Your task to perform on an android device: Open Google Chrome Image 0: 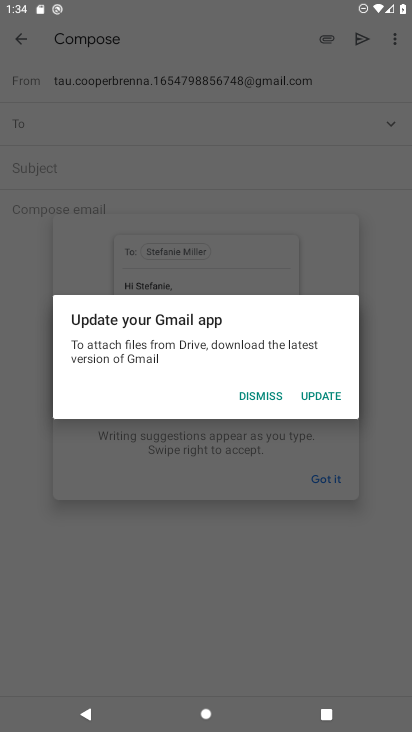
Step 0: press home button
Your task to perform on an android device: Open Google Chrome Image 1: 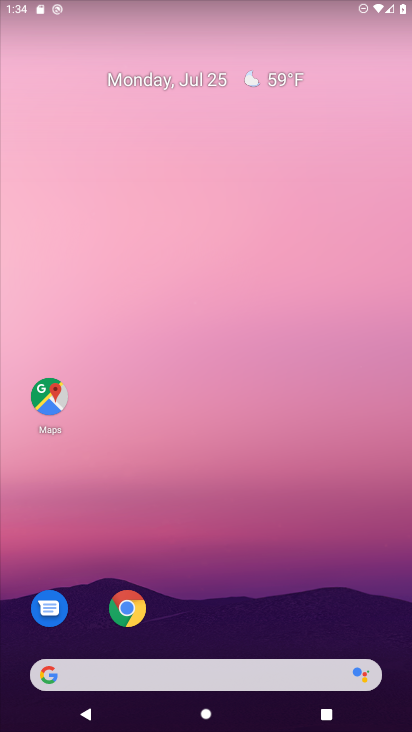
Step 1: click (129, 614)
Your task to perform on an android device: Open Google Chrome Image 2: 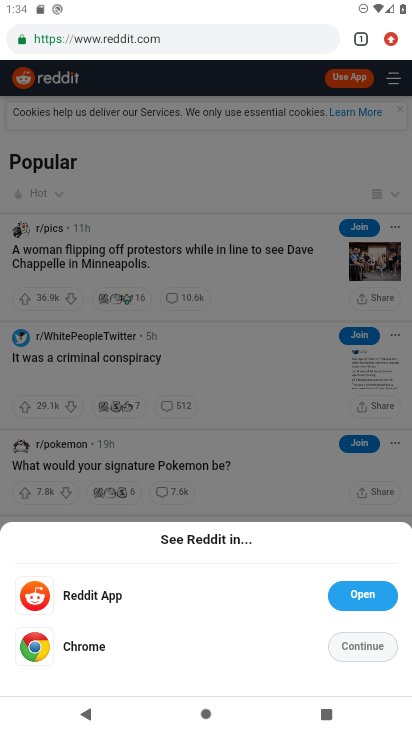
Step 2: task complete